Your task to perform on an android device: When is my next appointment? Image 0: 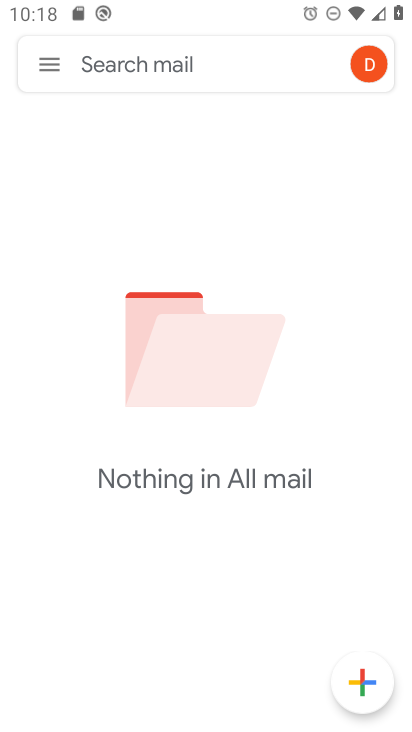
Step 0: press home button
Your task to perform on an android device: When is my next appointment? Image 1: 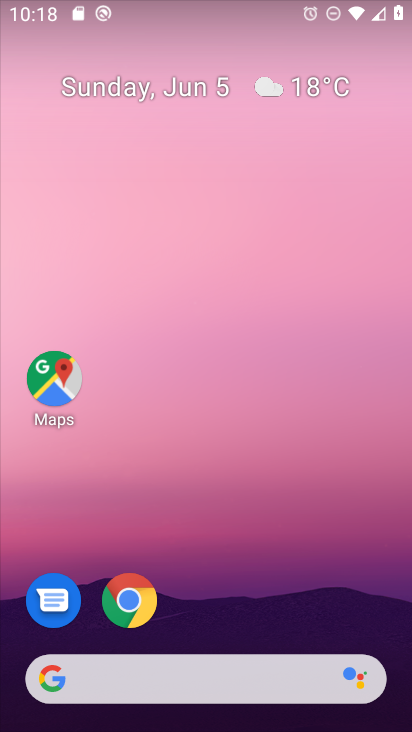
Step 1: drag from (224, 513) to (253, 92)
Your task to perform on an android device: When is my next appointment? Image 2: 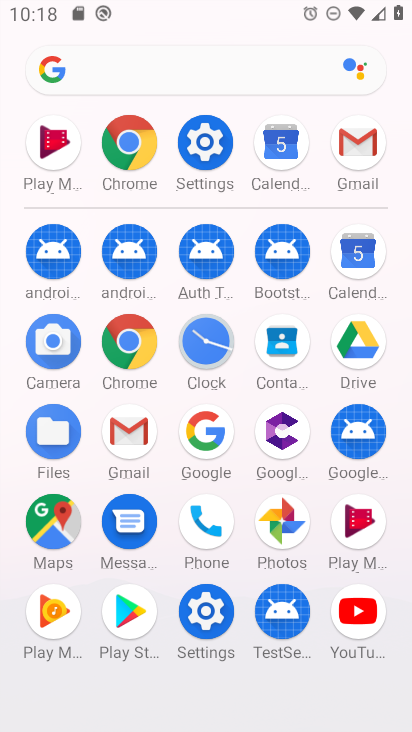
Step 2: click (359, 248)
Your task to perform on an android device: When is my next appointment? Image 3: 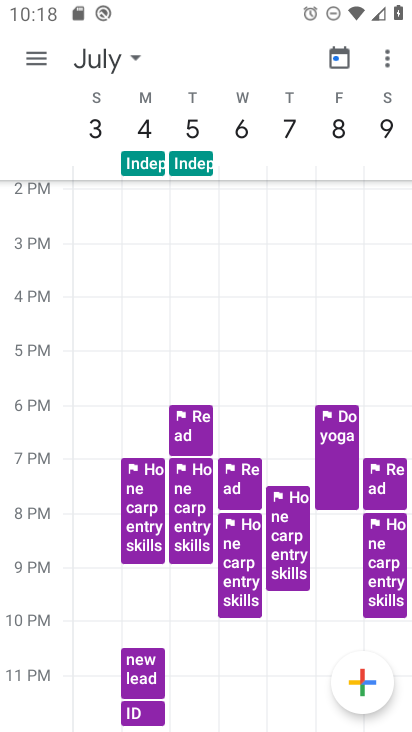
Step 3: drag from (107, 272) to (395, 317)
Your task to perform on an android device: When is my next appointment? Image 4: 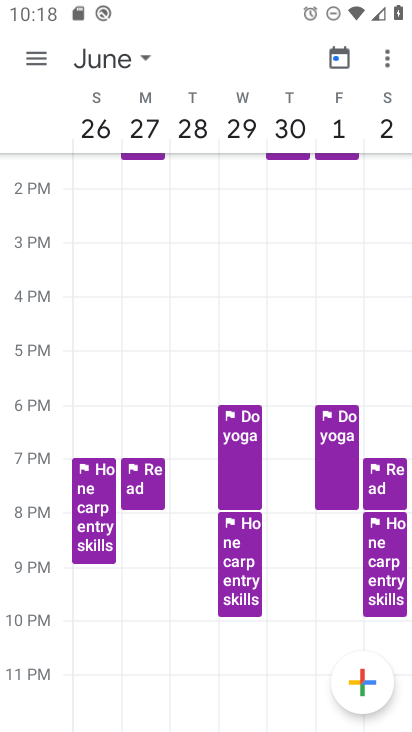
Step 4: drag from (111, 292) to (411, 343)
Your task to perform on an android device: When is my next appointment? Image 5: 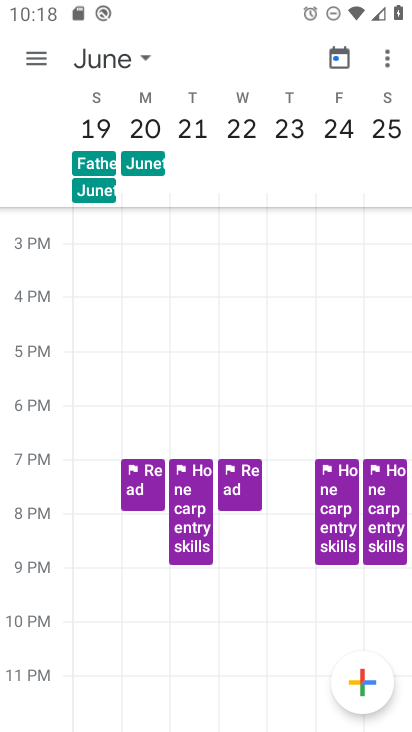
Step 5: drag from (132, 342) to (411, 345)
Your task to perform on an android device: When is my next appointment? Image 6: 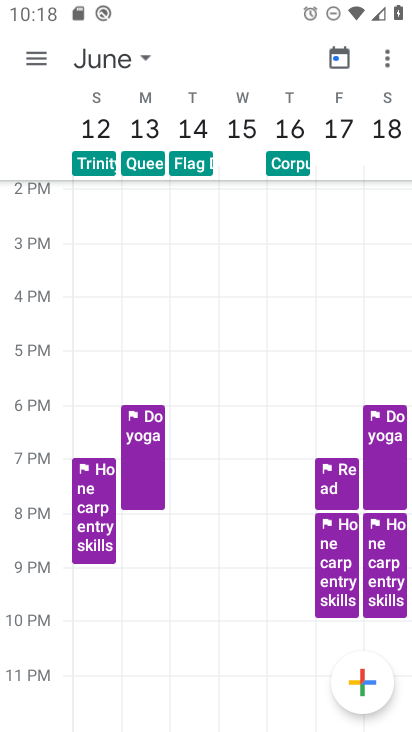
Step 6: drag from (109, 319) to (410, 357)
Your task to perform on an android device: When is my next appointment? Image 7: 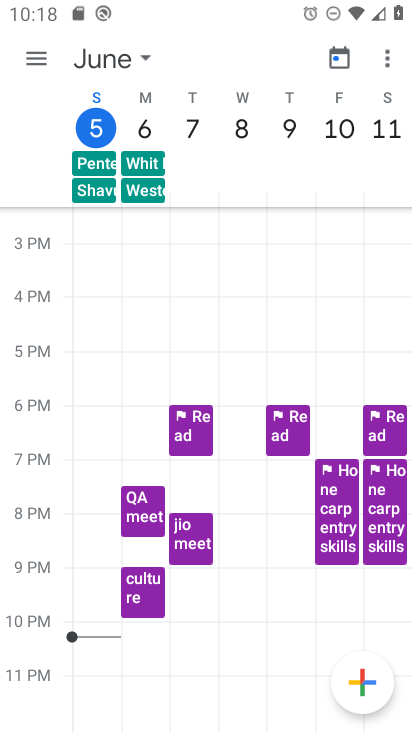
Step 7: click (100, 119)
Your task to perform on an android device: When is my next appointment? Image 8: 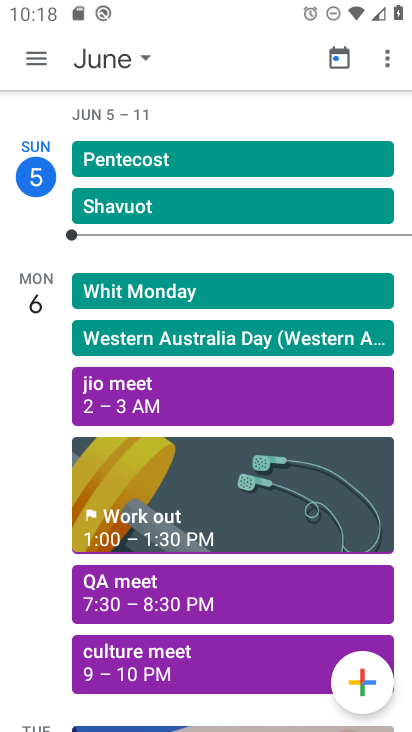
Step 8: task complete